Your task to perform on an android device: Open Youtube and go to "Your channel" Image 0: 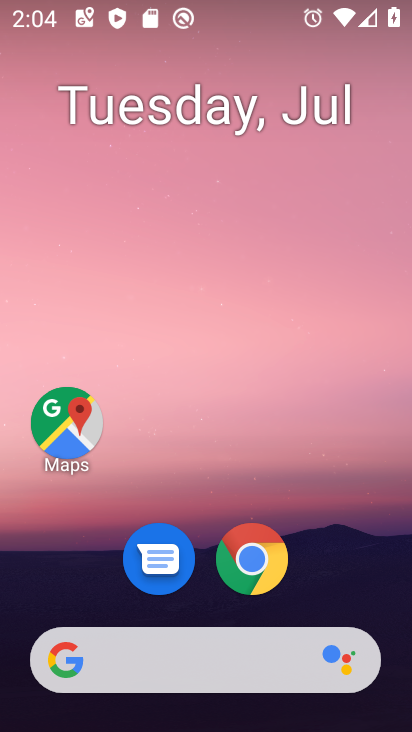
Step 0: drag from (357, 565) to (399, 146)
Your task to perform on an android device: Open Youtube and go to "Your channel" Image 1: 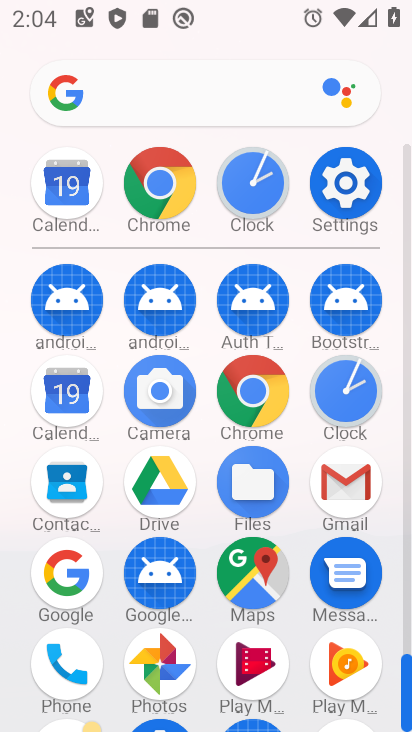
Step 1: drag from (385, 536) to (388, 372)
Your task to perform on an android device: Open Youtube and go to "Your channel" Image 2: 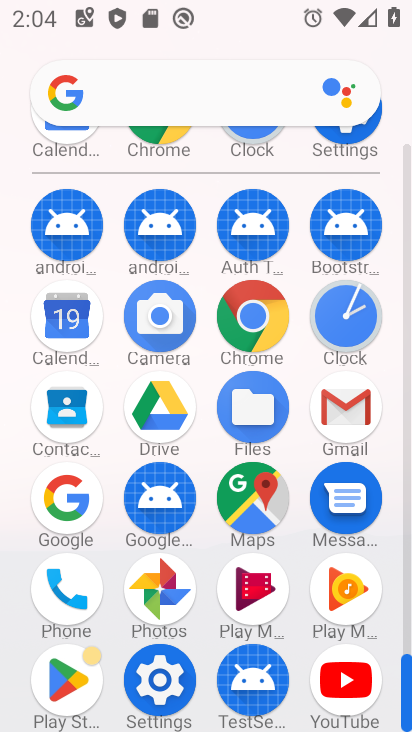
Step 2: click (346, 683)
Your task to perform on an android device: Open Youtube and go to "Your channel" Image 3: 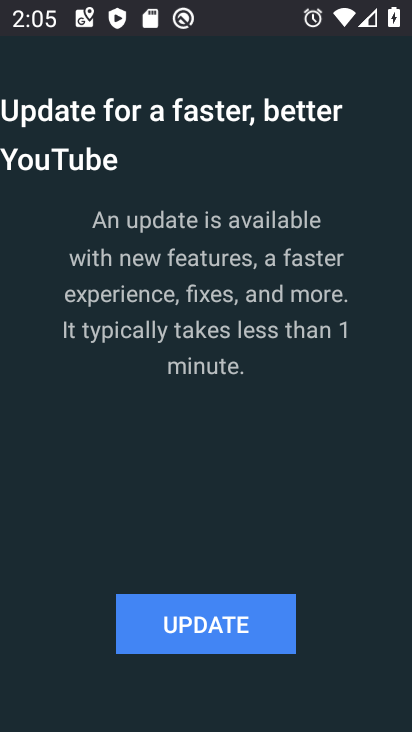
Step 3: click (279, 627)
Your task to perform on an android device: Open Youtube and go to "Your channel" Image 4: 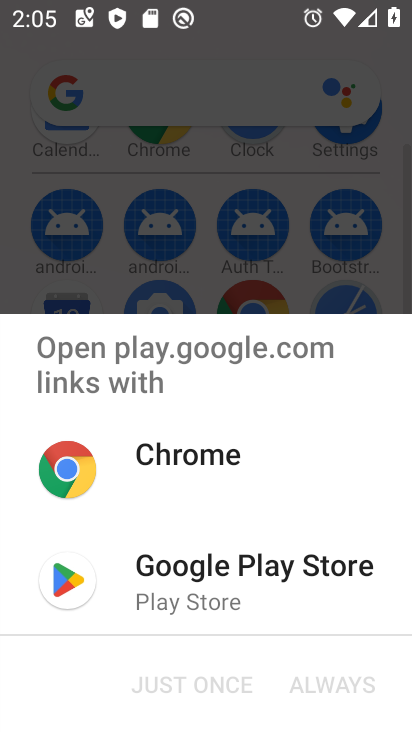
Step 4: click (206, 585)
Your task to perform on an android device: Open Youtube and go to "Your channel" Image 5: 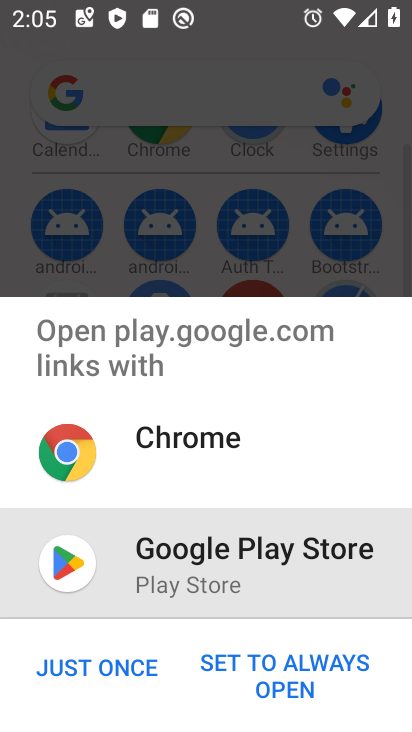
Step 5: click (133, 662)
Your task to perform on an android device: Open Youtube and go to "Your channel" Image 6: 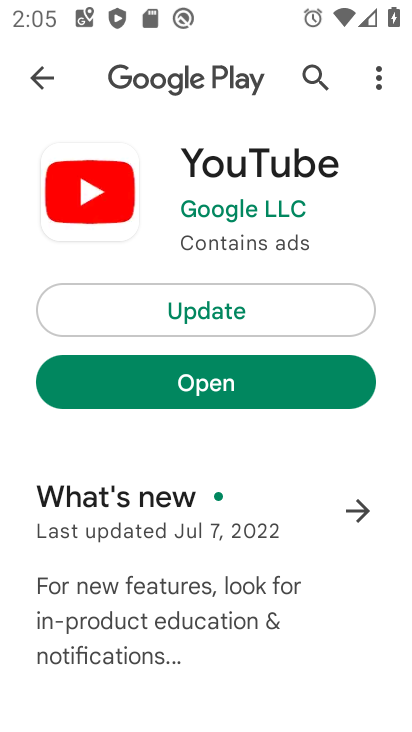
Step 6: click (213, 317)
Your task to perform on an android device: Open Youtube and go to "Your channel" Image 7: 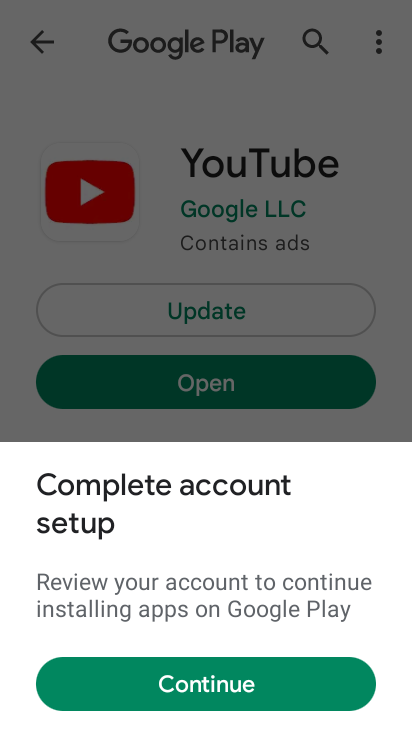
Step 7: click (200, 682)
Your task to perform on an android device: Open Youtube and go to "Your channel" Image 8: 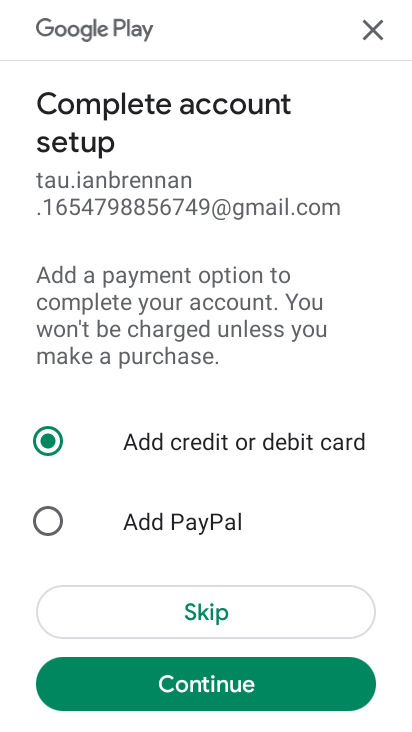
Step 8: click (231, 617)
Your task to perform on an android device: Open Youtube and go to "Your channel" Image 9: 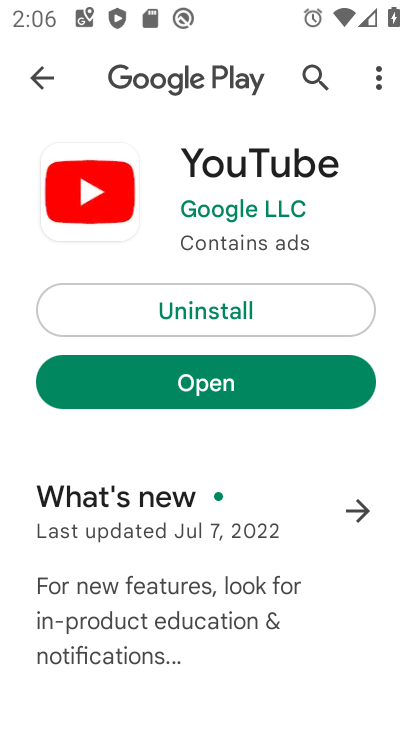
Step 9: click (355, 381)
Your task to perform on an android device: Open Youtube and go to "Your channel" Image 10: 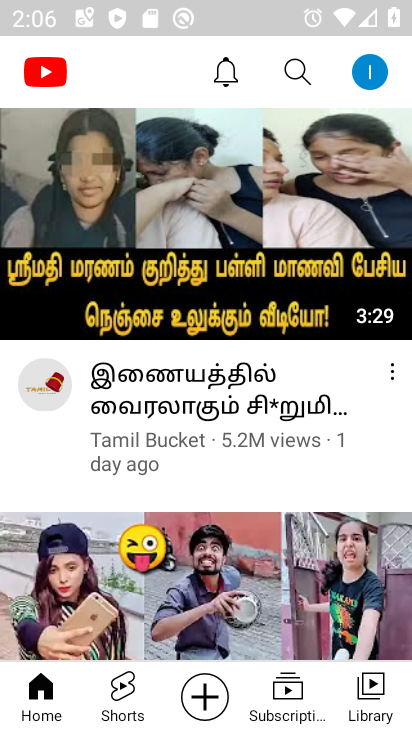
Step 10: click (365, 65)
Your task to perform on an android device: Open Youtube and go to "Your channel" Image 11: 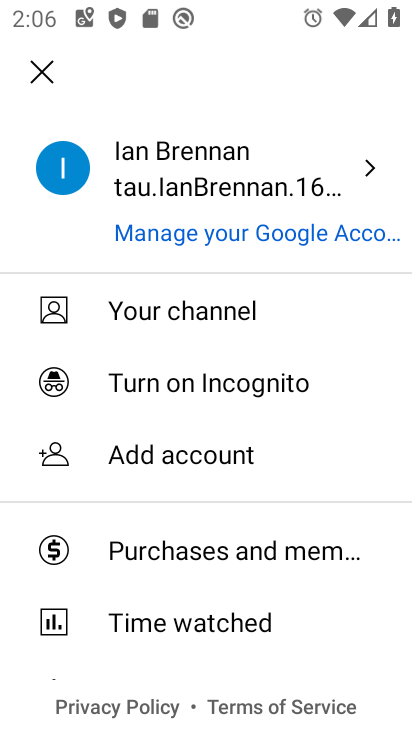
Step 11: click (225, 312)
Your task to perform on an android device: Open Youtube and go to "Your channel" Image 12: 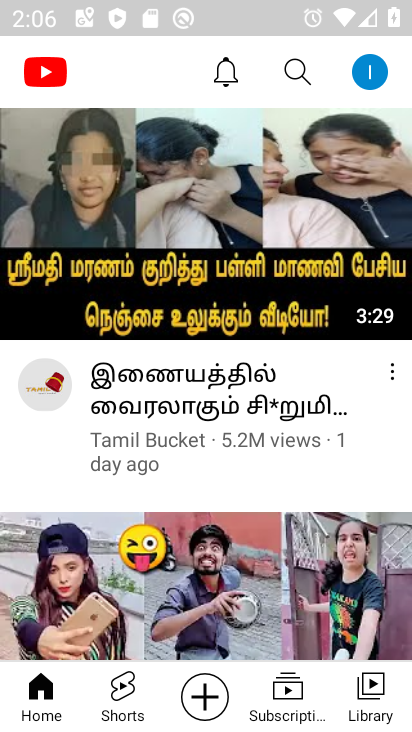
Step 12: task complete